Your task to perform on an android device: toggle notifications settings in the gmail app Image 0: 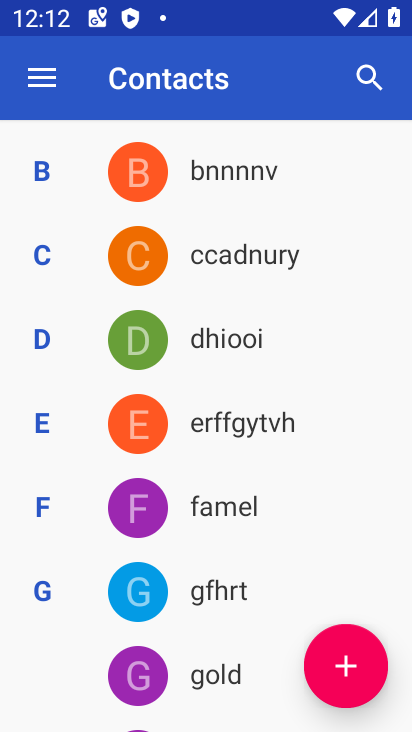
Step 0: press back button
Your task to perform on an android device: toggle notifications settings in the gmail app Image 1: 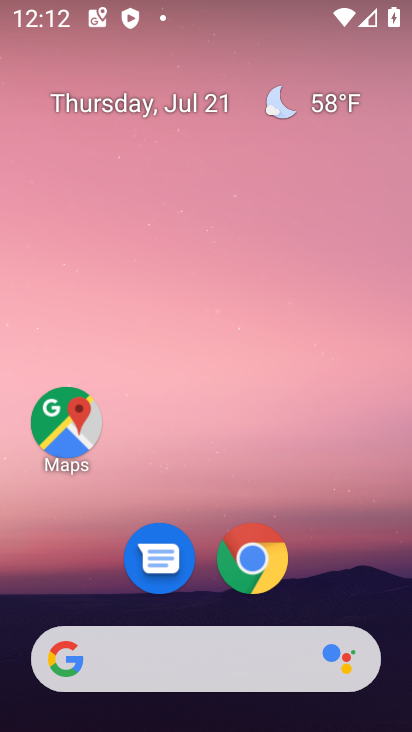
Step 1: drag from (113, 550) to (229, 76)
Your task to perform on an android device: toggle notifications settings in the gmail app Image 2: 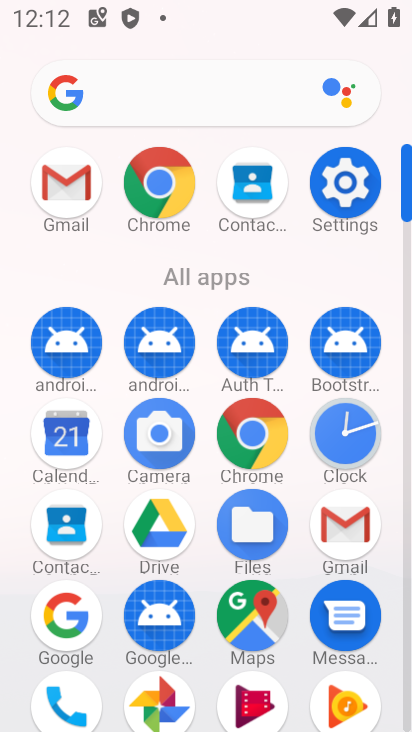
Step 2: click (77, 190)
Your task to perform on an android device: toggle notifications settings in the gmail app Image 3: 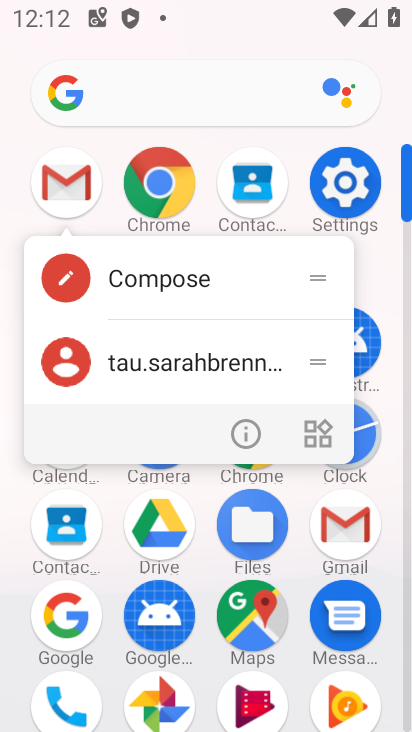
Step 3: click (238, 437)
Your task to perform on an android device: toggle notifications settings in the gmail app Image 4: 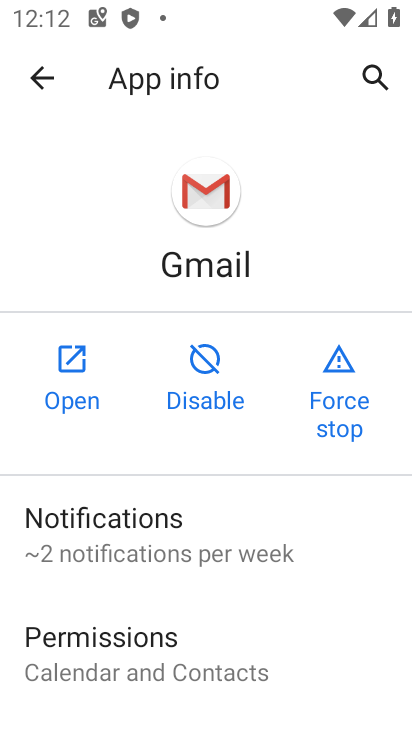
Step 4: click (128, 502)
Your task to perform on an android device: toggle notifications settings in the gmail app Image 5: 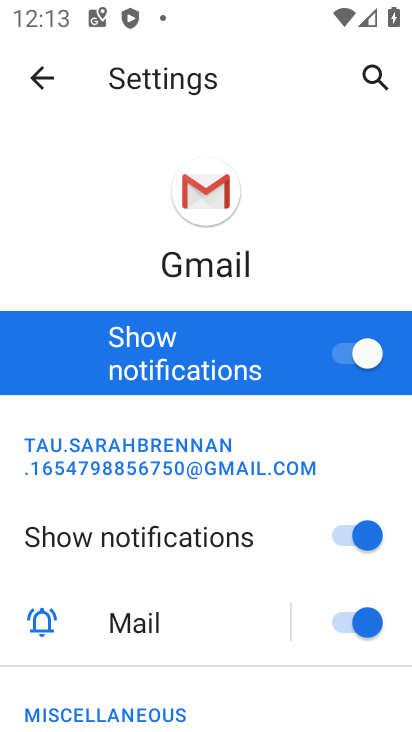
Step 5: click (365, 364)
Your task to perform on an android device: toggle notifications settings in the gmail app Image 6: 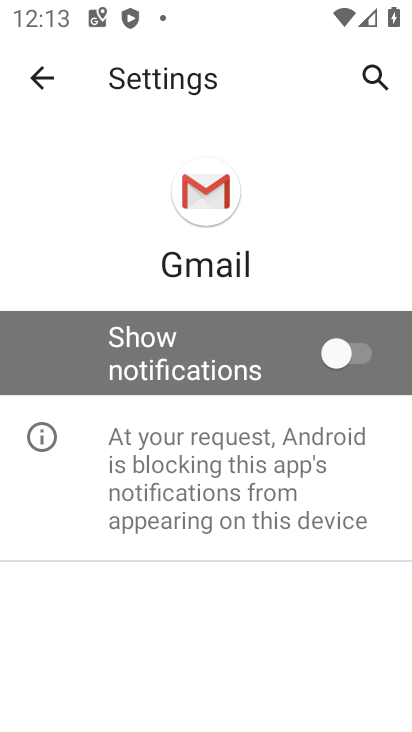
Step 6: task complete